Your task to perform on an android device: all mails in gmail Image 0: 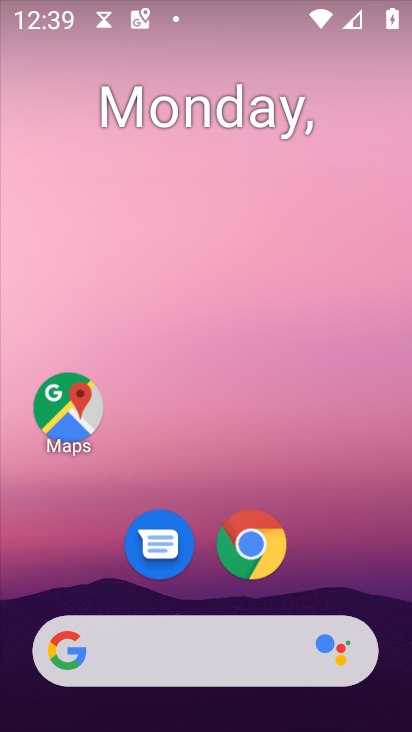
Step 0: drag from (319, 557) to (302, 199)
Your task to perform on an android device: all mails in gmail Image 1: 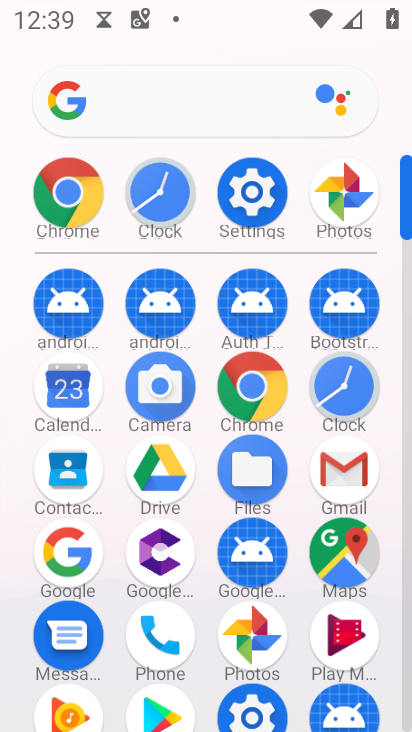
Step 1: click (344, 472)
Your task to perform on an android device: all mails in gmail Image 2: 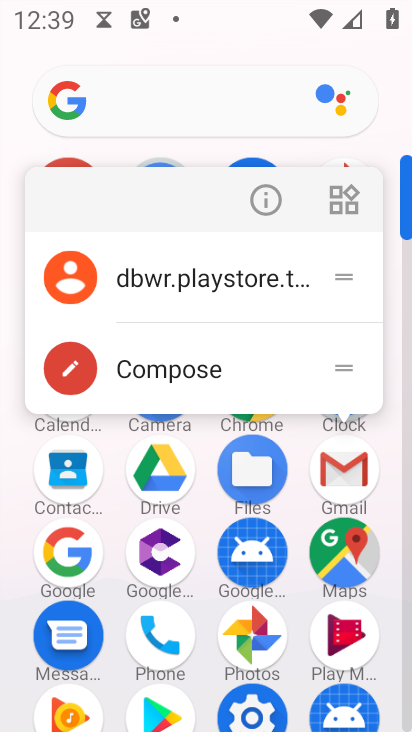
Step 2: click (331, 468)
Your task to perform on an android device: all mails in gmail Image 3: 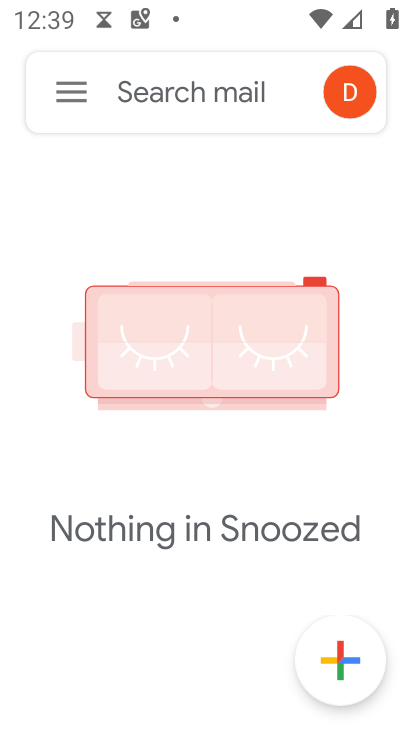
Step 3: click (60, 94)
Your task to perform on an android device: all mails in gmail Image 4: 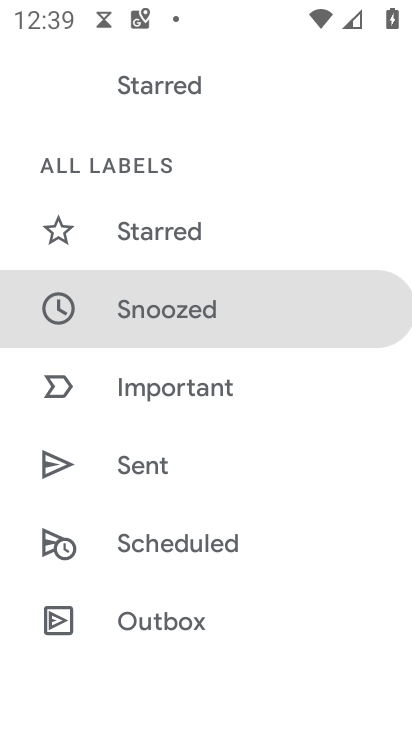
Step 4: drag from (215, 681) to (280, 235)
Your task to perform on an android device: all mails in gmail Image 5: 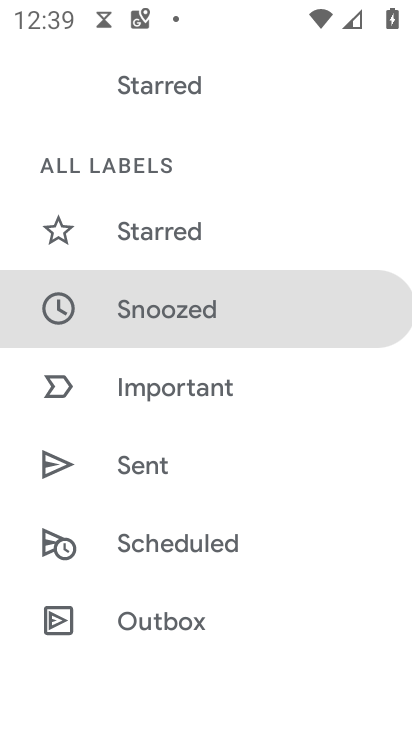
Step 5: drag from (196, 501) to (235, 223)
Your task to perform on an android device: all mails in gmail Image 6: 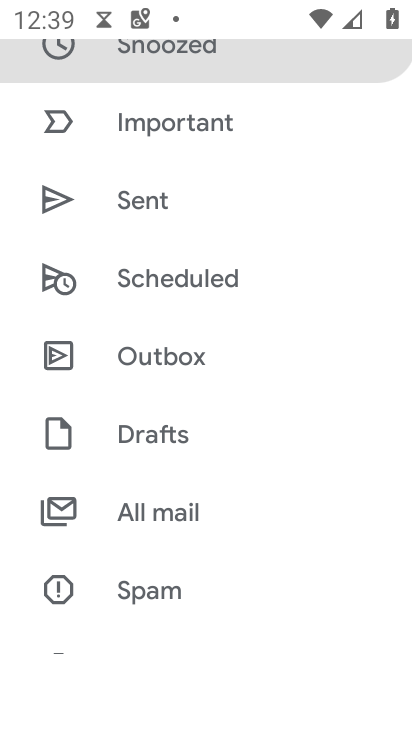
Step 6: drag from (263, 250) to (280, 153)
Your task to perform on an android device: all mails in gmail Image 7: 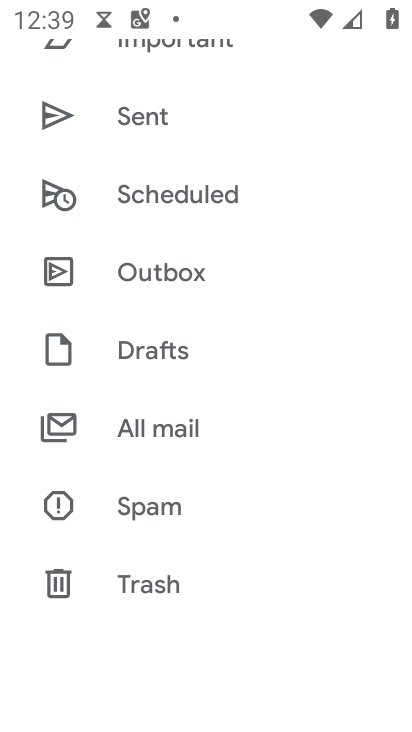
Step 7: drag from (247, 333) to (279, 131)
Your task to perform on an android device: all mails in gmail Image 8: 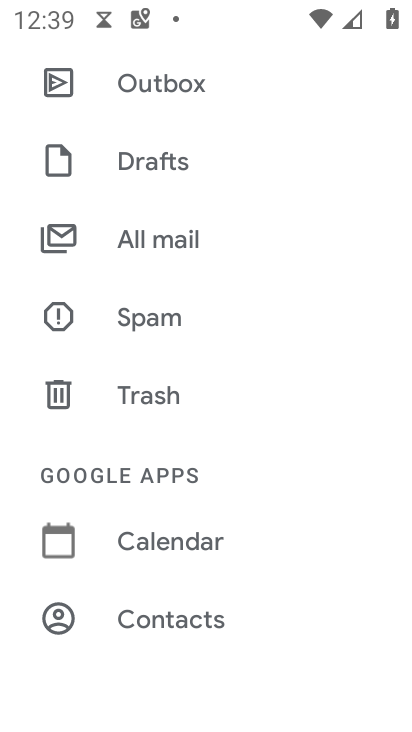
Step 8: click (175, 224)
Your task to perform on an android device: all mails in gmail Image 9: 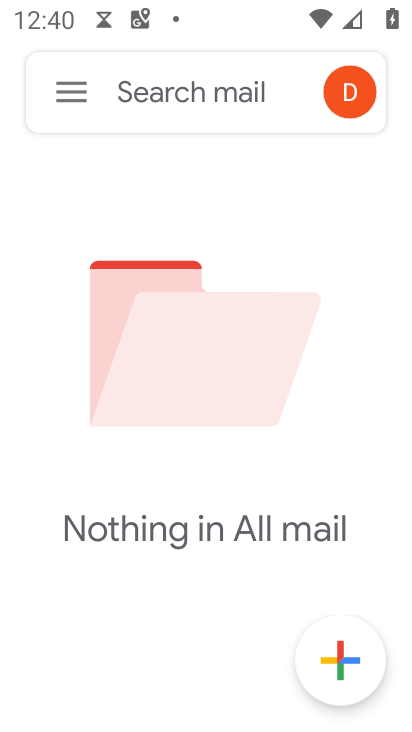
Step 9: task complete